Your task to perform on an android device: Open the map Image 0: 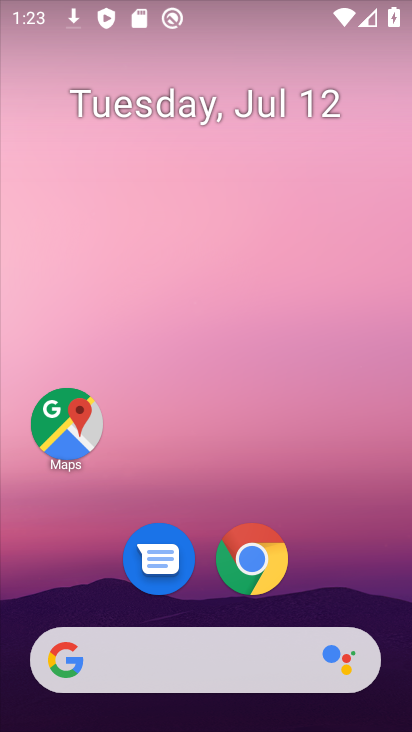
Step 0: drag from (351, 574) to (368, 75)
Your task to perform on an android device: Open the map Image 1: 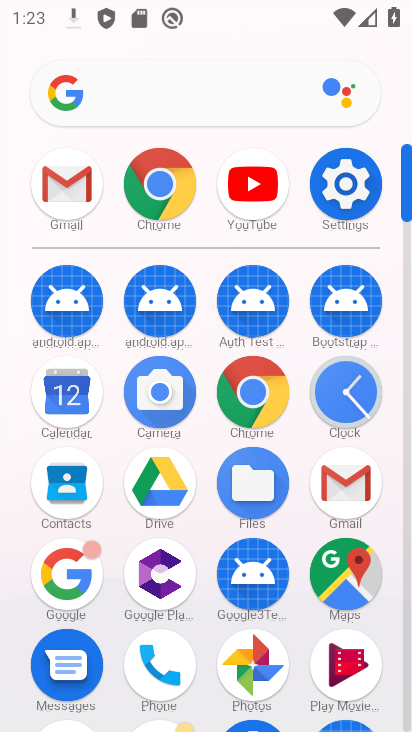
Step 1: click (362, 585)
Your task to perform on an android device: Open the map Image 2: 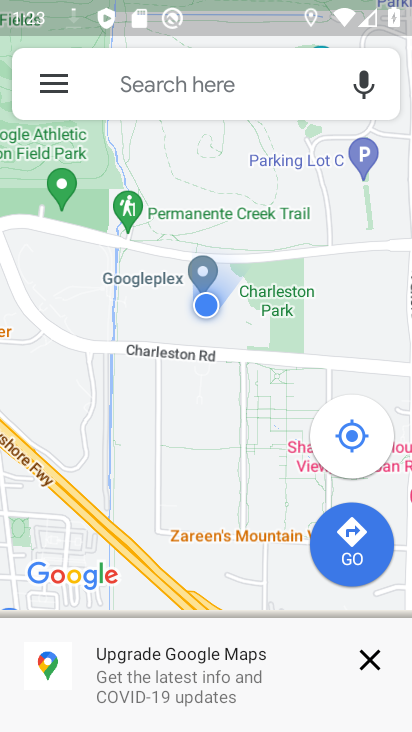
Step 2: task complete